Your task to perform on an android device: Go to internet settings Image 0: 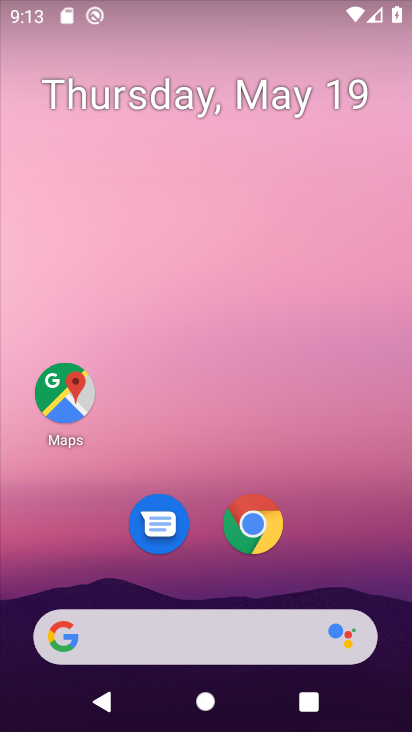
Step 0: drag from (222, 445) to (249, 36)
Your task to perform on an android device: Go to internet settings Image 1: 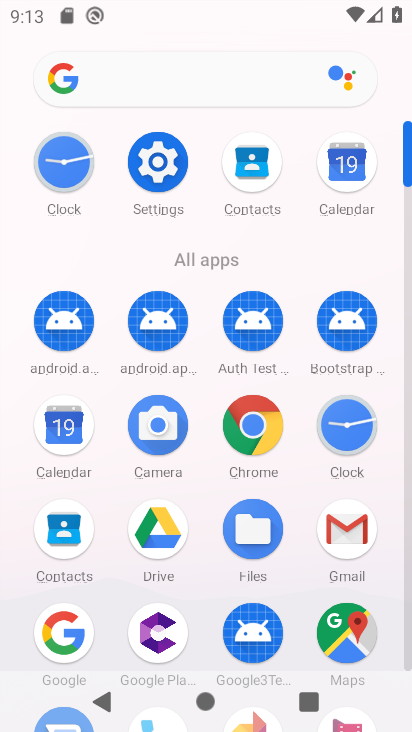
Step 1: click (159, 169)
Your task to perform on an android device: Go to internet settings Image 2: 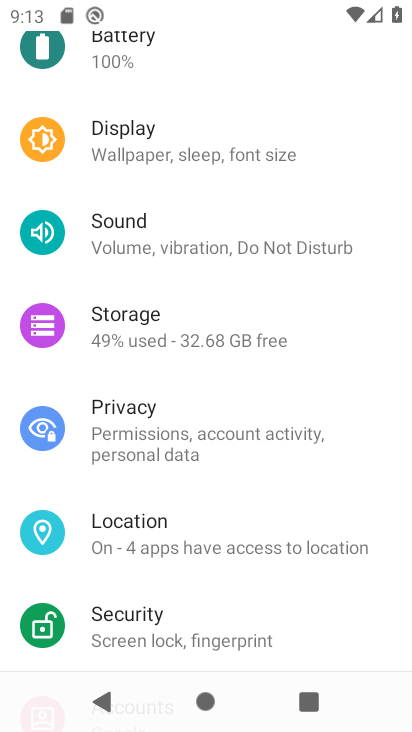
Step 2: drag from (179, 207) to (209, 616)
Your task to perform on an android device: Go to internet settings Image 3: 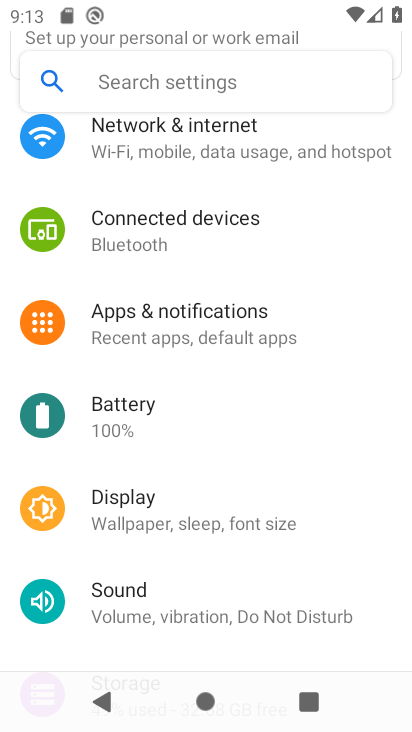
Step 3: drag from (186, 426) to (213, 570)
Your task to perform on an android device: Go to internet settings Image 4: 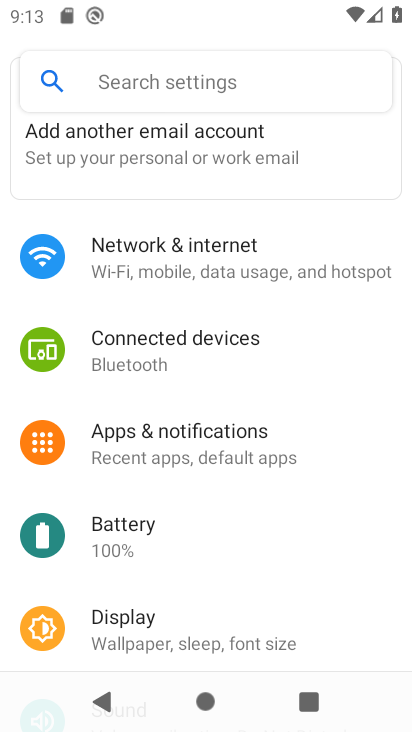
Step 4: click (239, 253)
Your task to perform on an android device: Go to internet settings Image 5: 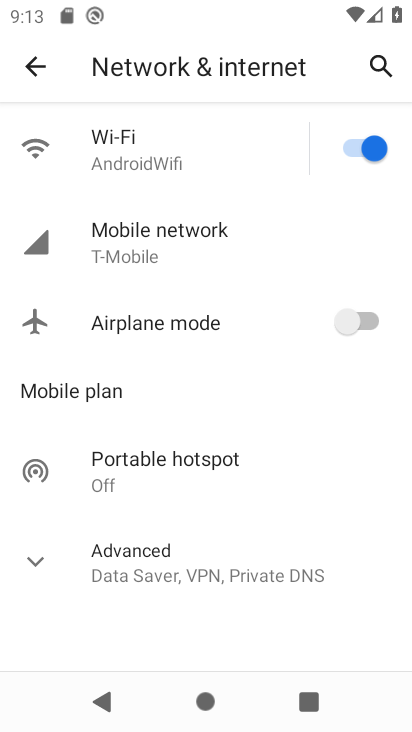
Step 5: task complete